Your task to perform on an android device: refresh tabs in the chrome app Image 0: 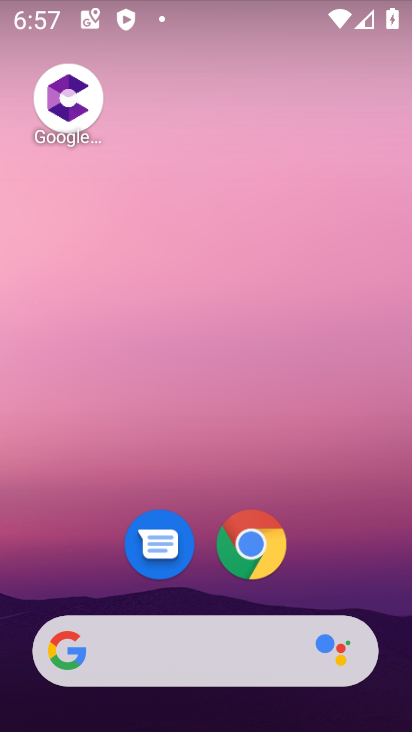
Step 0: click (252, 541)
Your task to perform on an android device: refresh tabs in the chrome app Image 1: 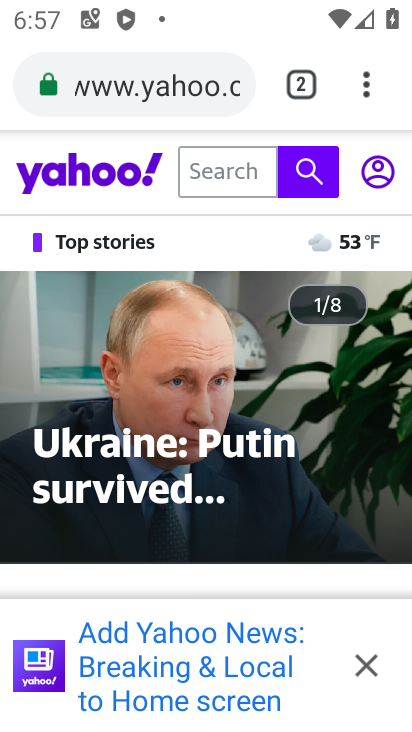
Step 1: click (371, 70)
Your task to perform on an android device: refresh tabs in the chrome app Image 2: 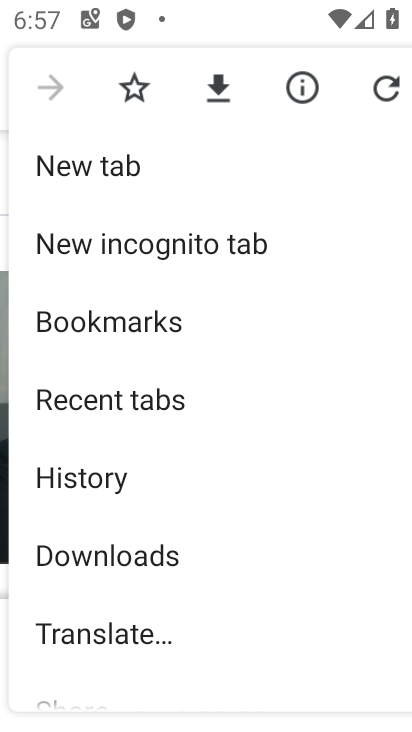
Step 2: click (383, 85)
Your task to perform on an android device: refresh tabs in the chrome app Image 3: 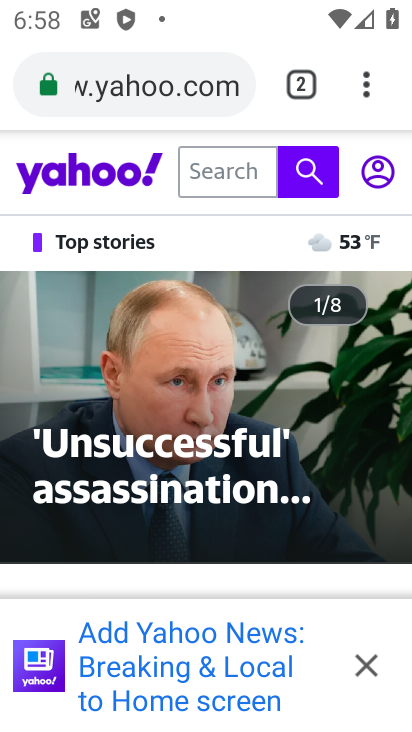
Step 3: task complete